Your task to perform on an android device: Open Yahoo.com Image 0: 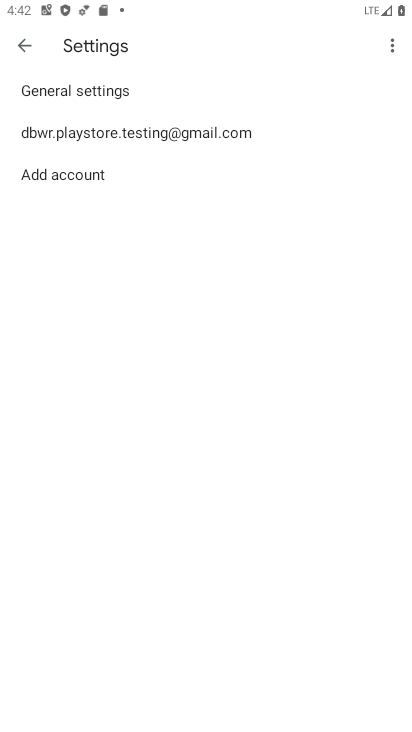
Step 0: press home button
Your task to perform on an android device: Open Yahoo.com Image 1: 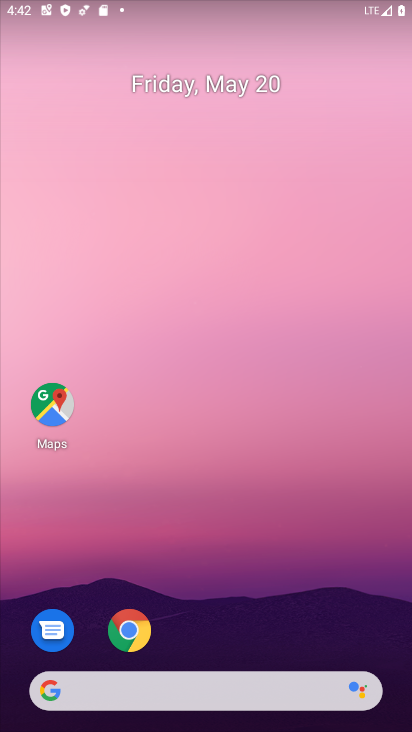
Step 1: click (276, 692)
Your task to perform on an android device: Open Yahoo.com Image 2: 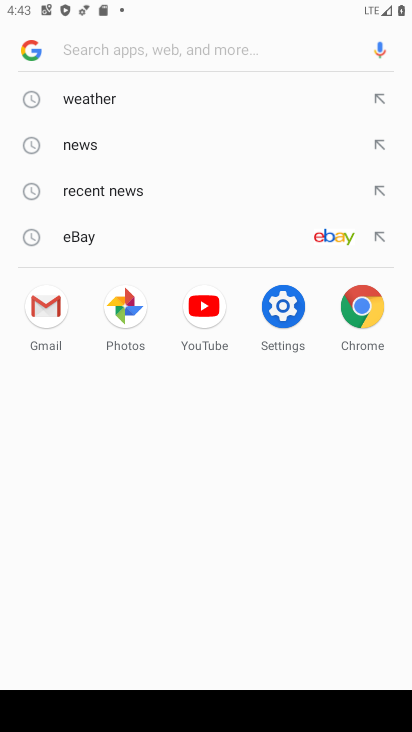
Step 2: type "yahoo.com"
Your task to perform on an android device: Open Yahoo.com Image 3: 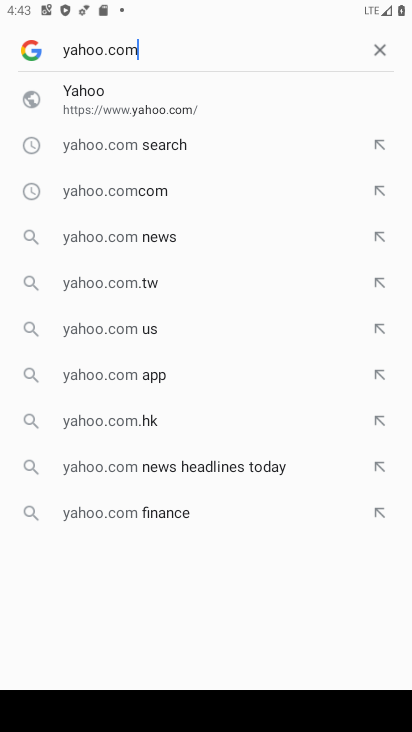
Step 3: click (82, 98)
Your task to perform on an android device: Open Yahoo.com Image 4: 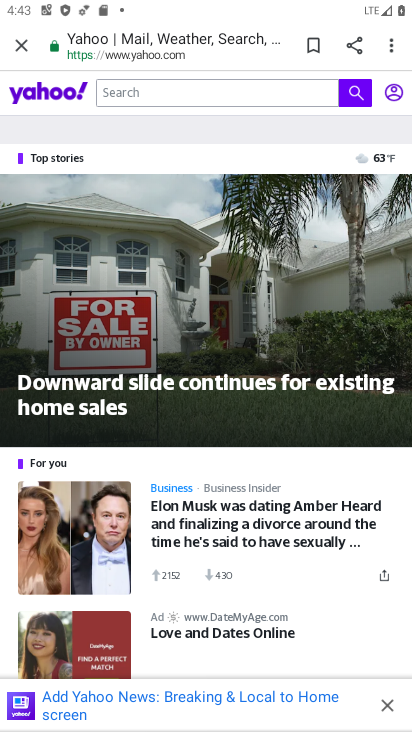
Step 4: task complete